Your task to perform on an android device: empty trash in google photos Image 0: 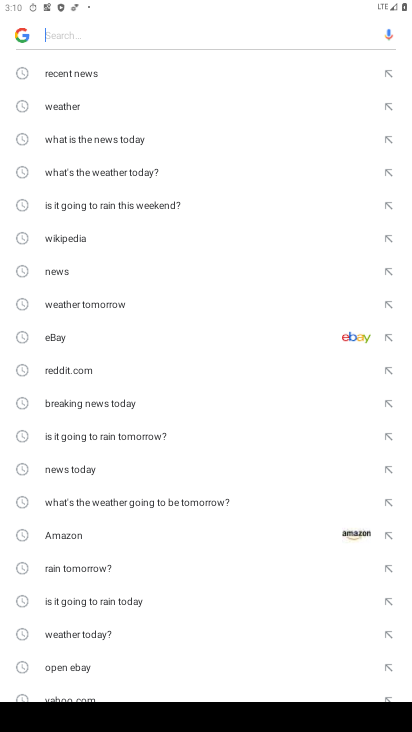
Step 0: press home button
Your task to perform on an android device: empty trash in google photos Image 1: 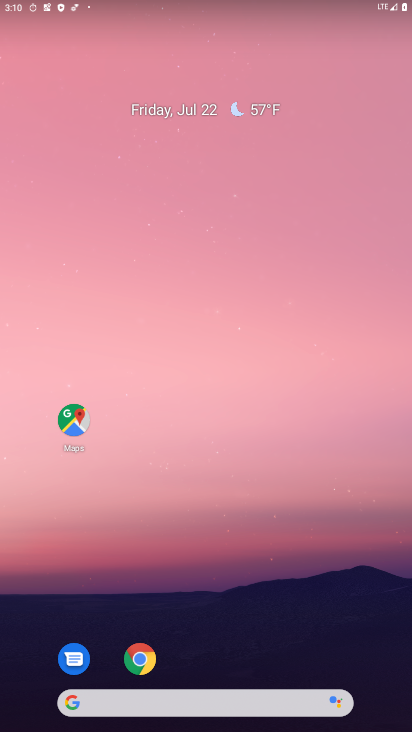
Step 1: drag from (295, 624) to (288, 220)
Your task to perform on an android device: empty trash in google photos Image 2: 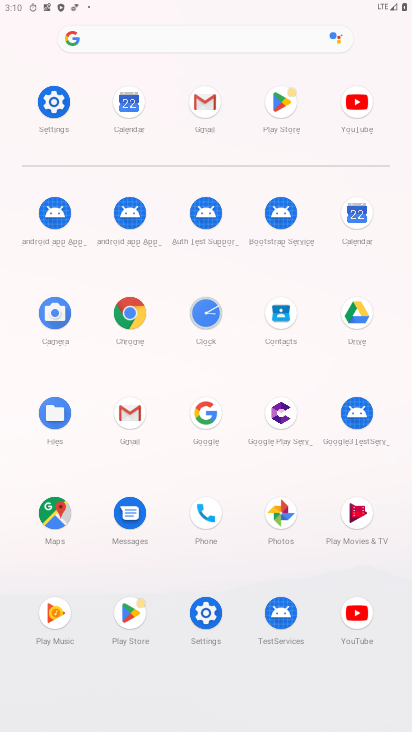
Step 2: click (279, 519)
Your task to perform on an android device: empty trash in google photos Image 3: 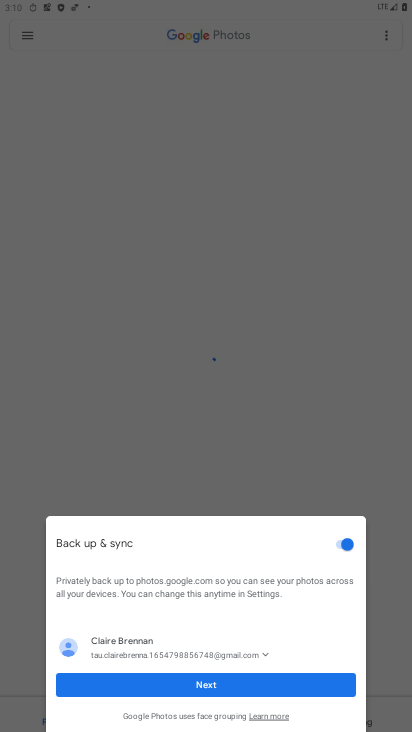
Step 3: click (160, 690)
Your task to perform on an android device: empty trash in google photos Image 4: 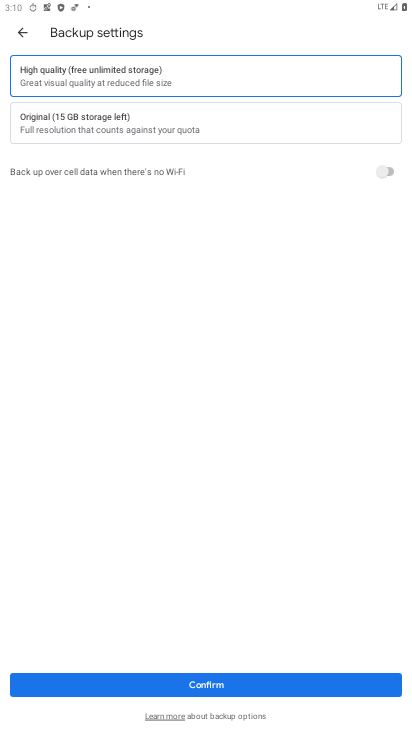
Step 4: click (188, 681)
Your task to perform on an android device: empty trash in google photos Image 5: 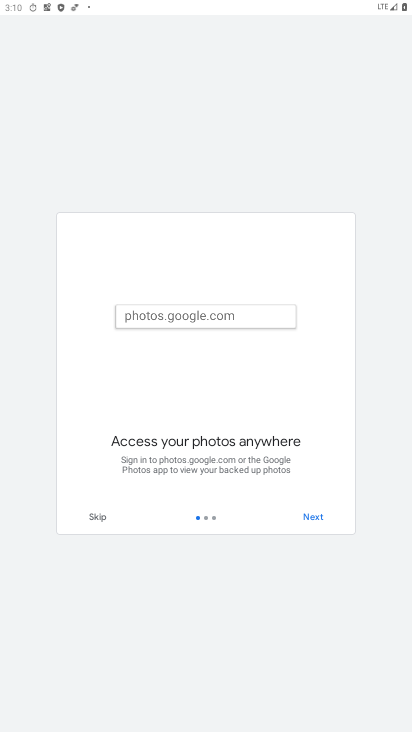
Step 5: click (90, 517)
Your task to perform on an android device: empty trash in google photos Image 6: 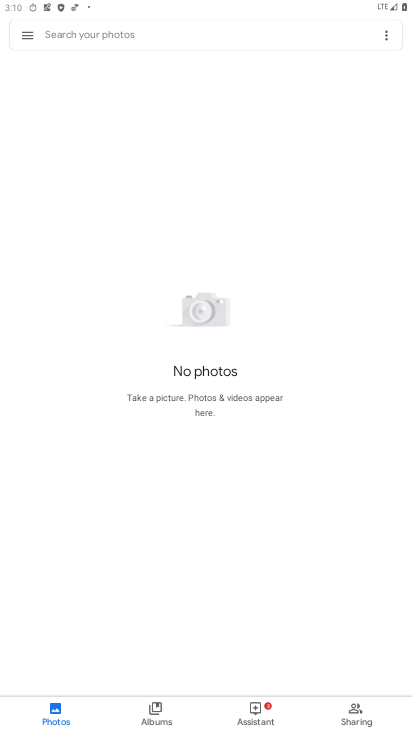
Step 6: click (27, 32)
Your task to perform on an android device: empty trash in google photos Image 7: 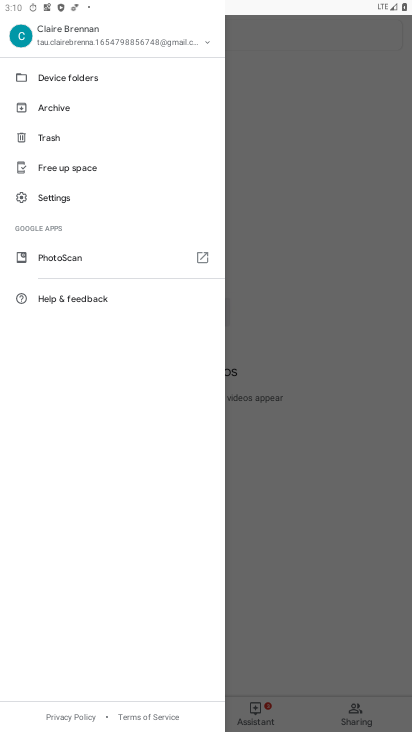
Step 7: click (60, 141)
Your task to perform on an android device: empty trash in google photos Image 8: 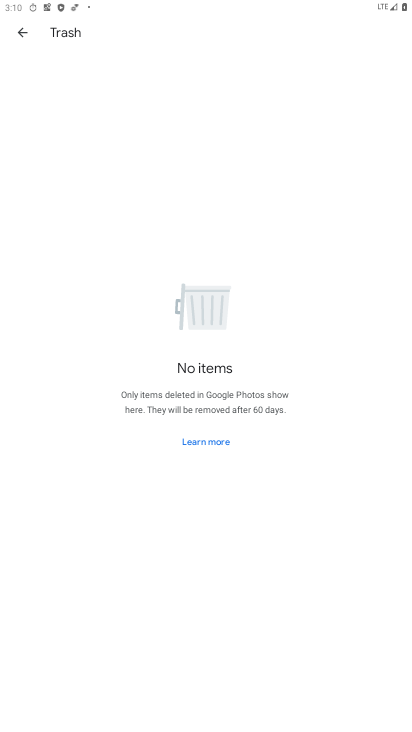
Step 8: task complete